Your task to perform on an android device: Open the web browser Image 0: 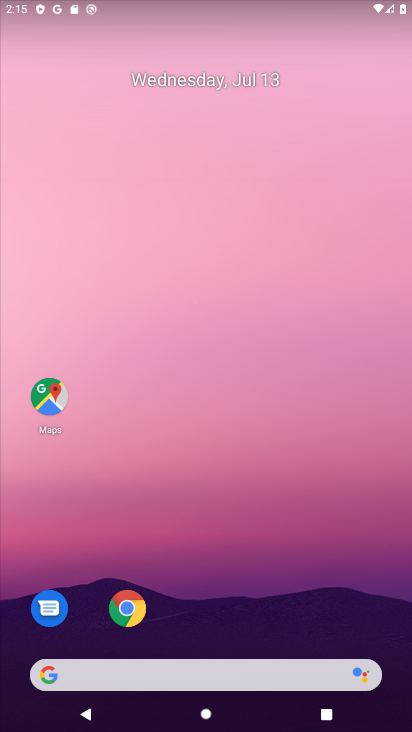
Step 0: click (241, 673)
Your task to perform on an android device: Open the web browser Image 1: 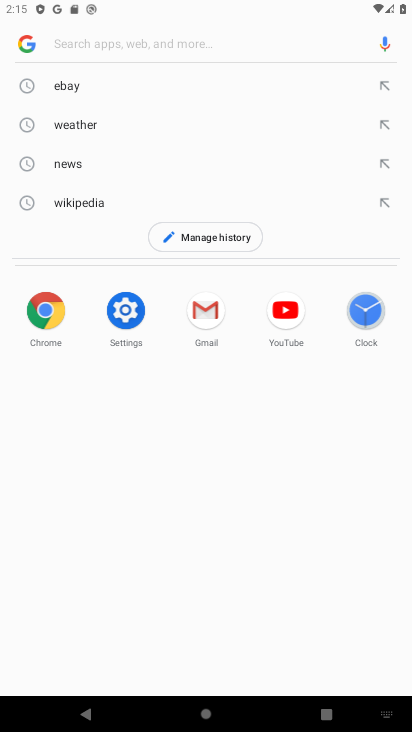
Step 1: task complete